Your task to perform on an android device: Go to ESPN.com Image 0: 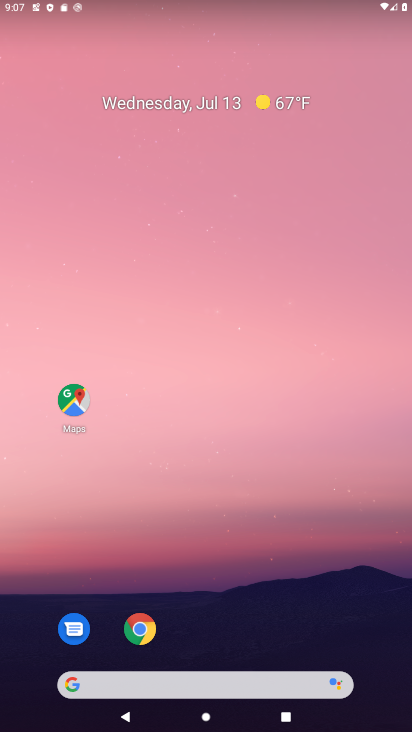
Step 0: click (144, 638)
Your task to perform on an android device: Go to ESPN.com Image 1: 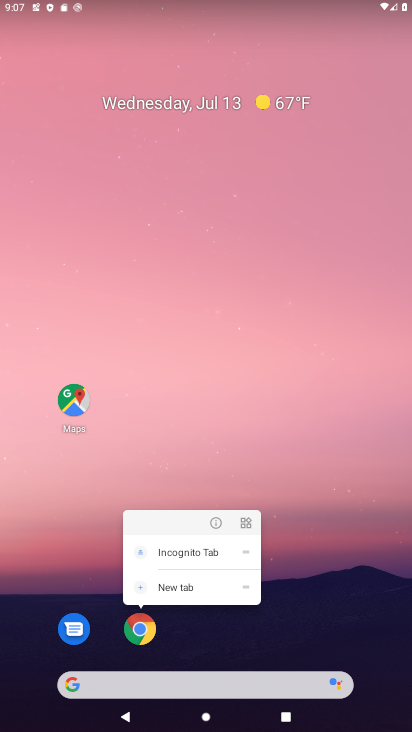
Step 1: click (144, 633)
Your task to perform on an android device: Go to ESPN.com Image 2: 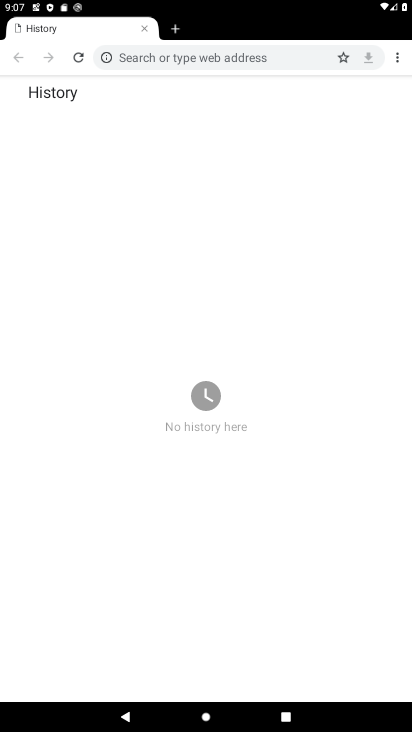
Step 2: click (222, 47)
Your task to perform on an android device: Go to ESPN.com Image 3: 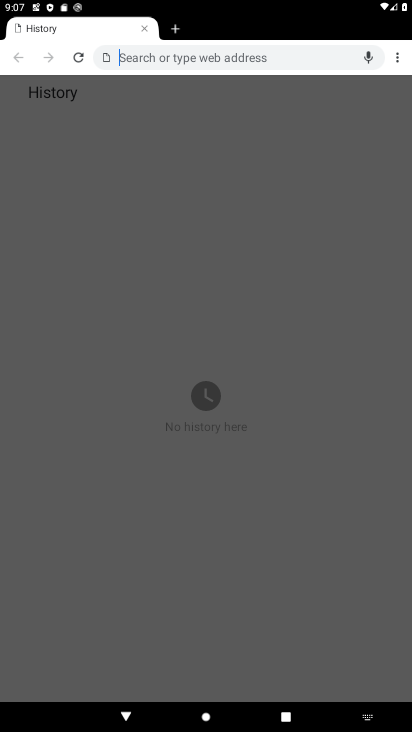
Step 3: type "ESPN.com"
Your task to perform on an android device: Go to ESPN.com Image 4: 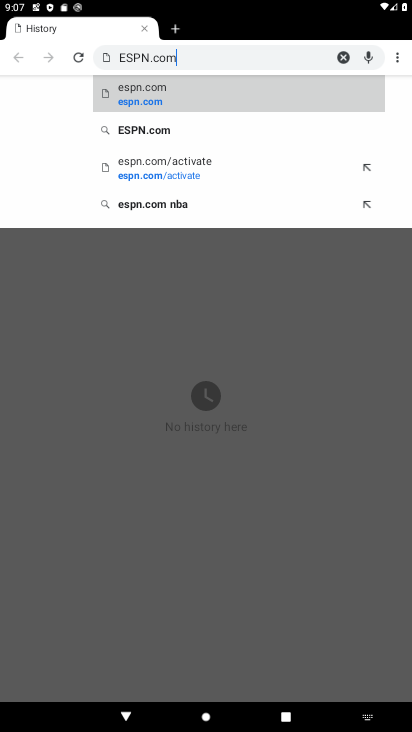
Step 4: click (152, 125)
Your task to perform on an android device: Go to ESPN.com Image 5: 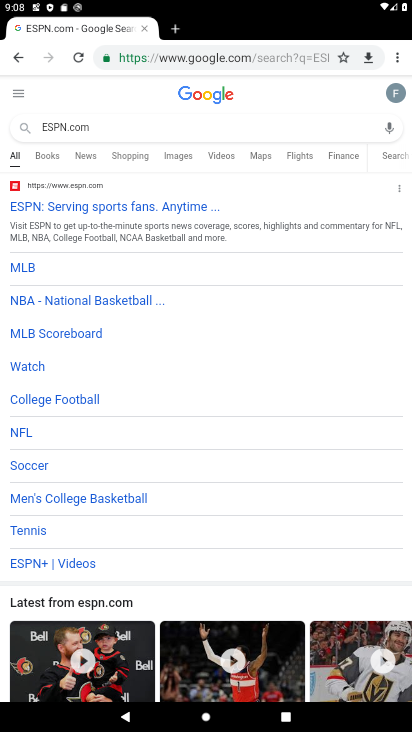
Step 5: task complete